Your task to perform on an android device: turn off improve location accuracy Image 0: 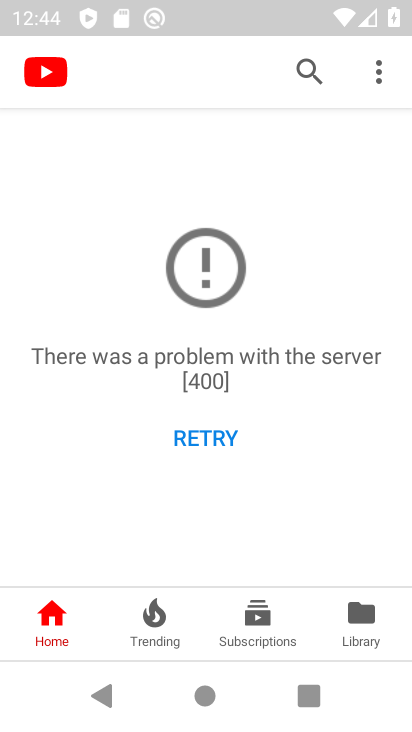
Step 0: press home button
Your task to perform on an android device: turn off improve location accuracy Image 1: 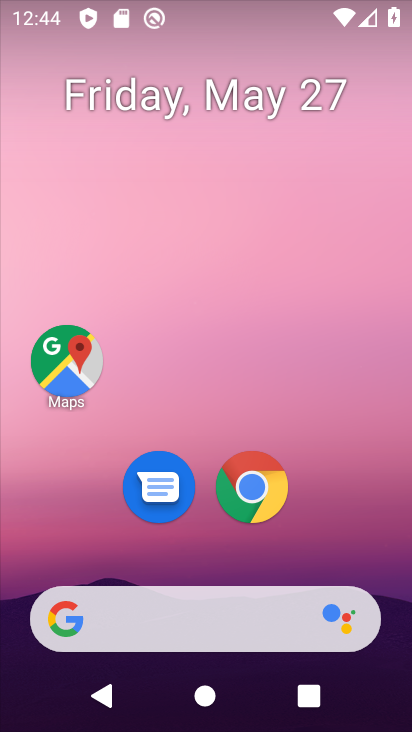
Step 1: drag from (163, 726) to (231, 22)
Your task to perform on an android device: turn off improve location accuracy Image 2: 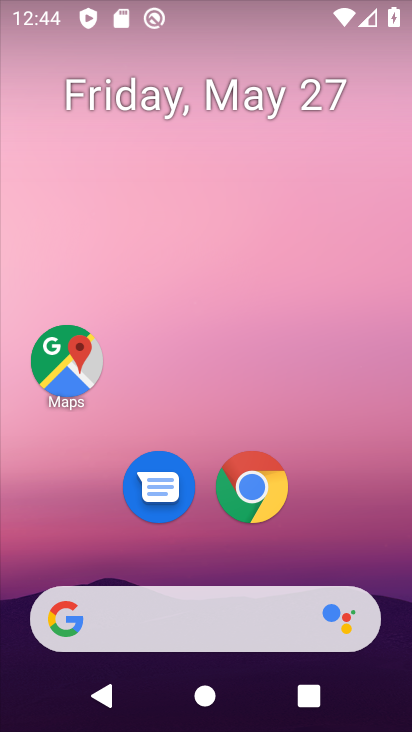
Step 2: drag from (171, 722) to (265, 63)
Your task to perform on an android device: turn off improve location accuracy Image 3: 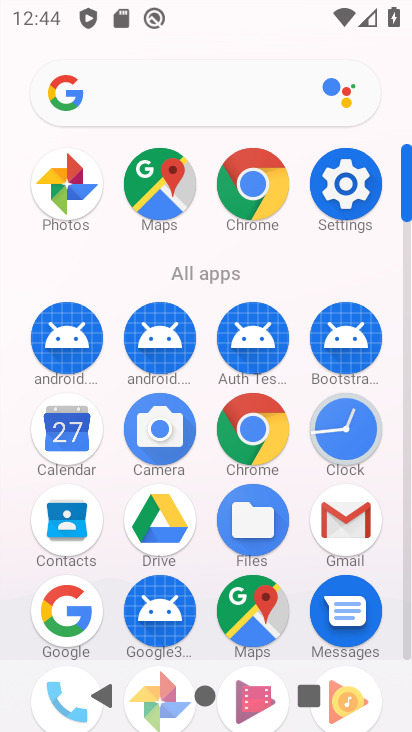
Step 3: click (339, 186)
Your task to perform on an android device: turn off improve location accuracy Image 4: 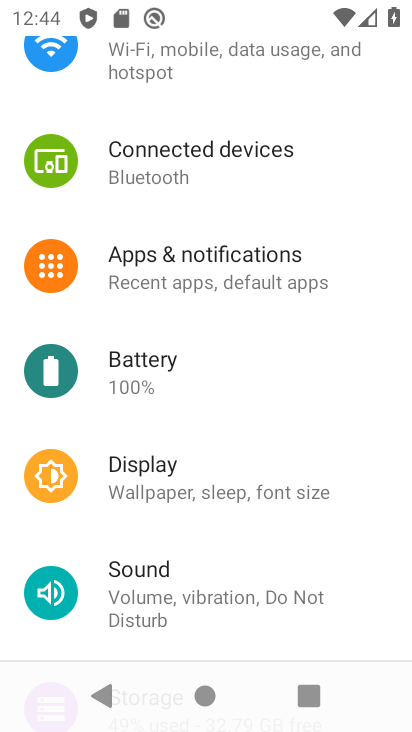
Step 4: drag from (321, 575) to (317, 192)
Your task to perform on an android device: turn off improve location accuracy Image 5: 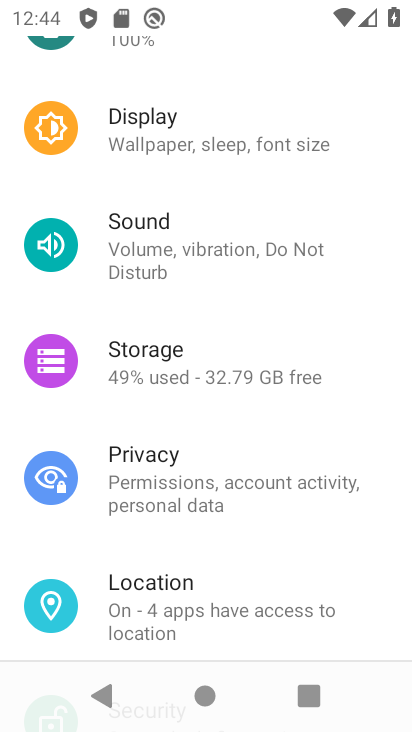
Step 5: click (217, 603)
Your task to perform on an android device: turn off improve location accuracy Image 6: 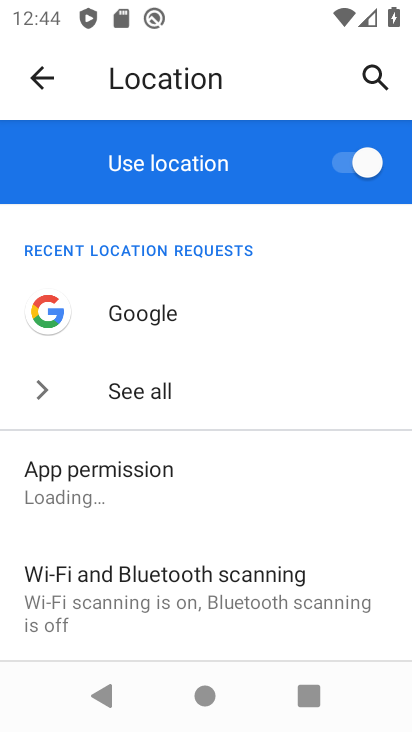
Step 6: drag from (267, 535) to (266, 210)
Your task to perform on an android device: turn off improve location accuracy Image 7: 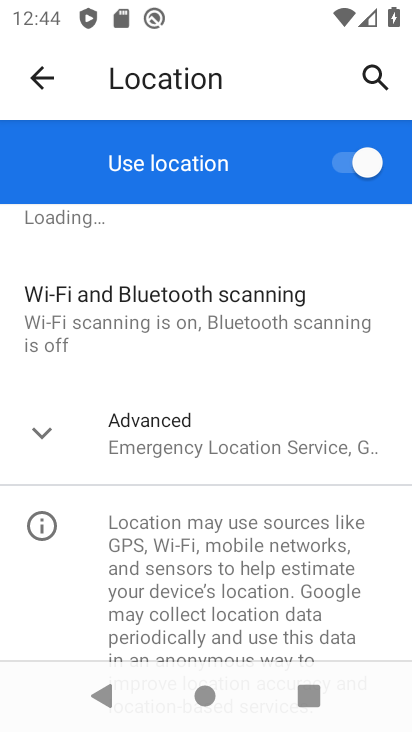
Step 7: click (214, 459)
Your task to perform on an android device: turn off improve location accuracy Image 8: 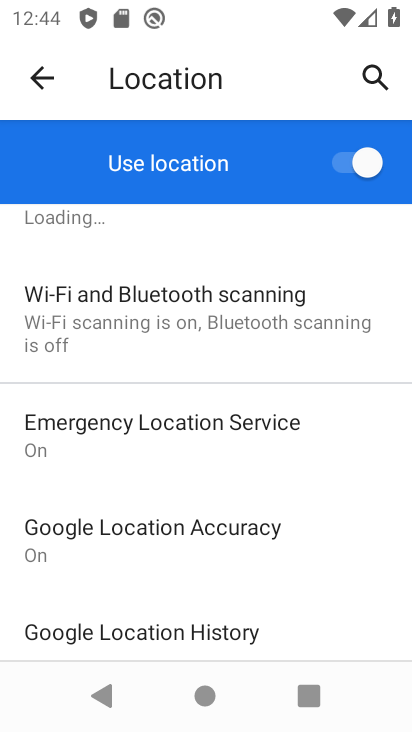
Step 8: click (231, 538)
Your task to perform on an android device: turn off improve location accuracy Image 9: 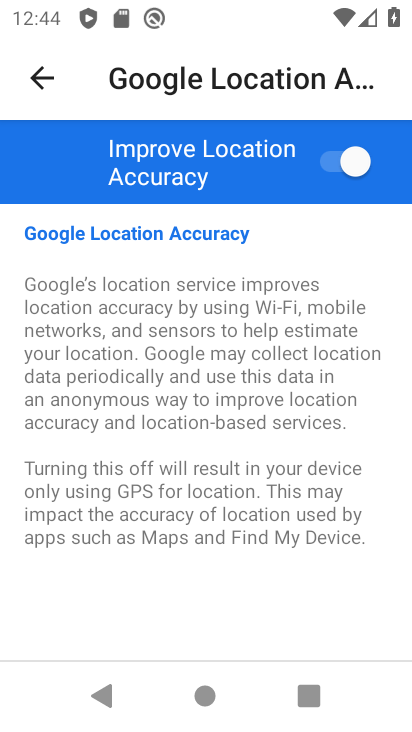
Step 9: click (342, 161)
Your task to perform on an android device: turn off improve location accuracy Image 10: 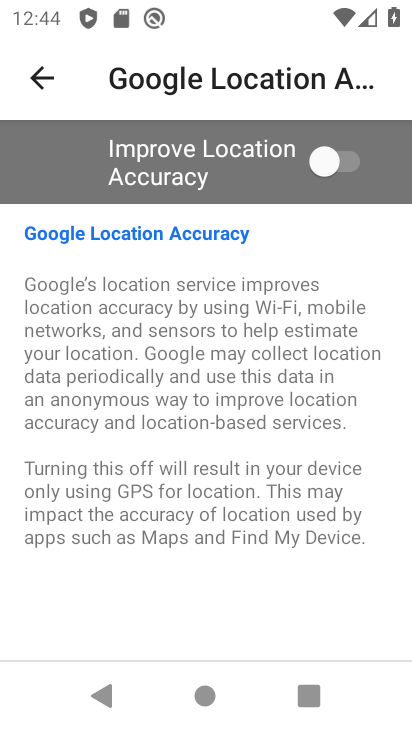
Step 10: task complete